Your task to perform on an android device: turn off improve location accuracy Image 0: 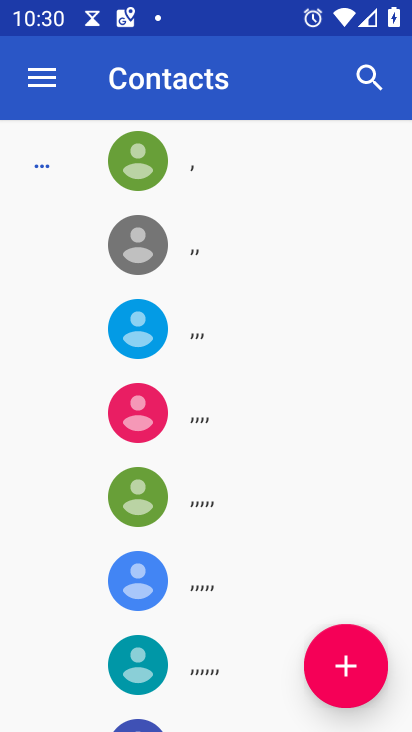
Step 0: press back button
Your task to perform on an android device: turn off improve location accuracy Image 1: 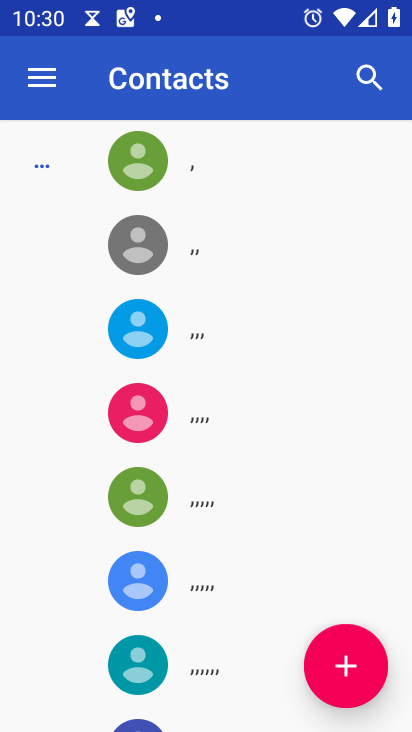
Step 1: press back button
Your task to perform on an android device: turn off improve location accuracy Image 2: 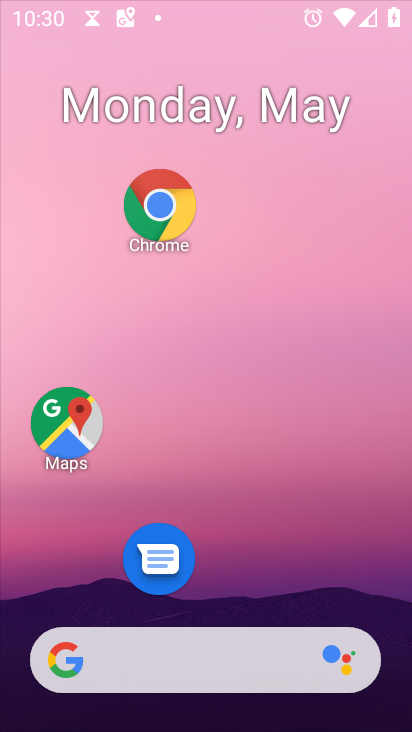
Step 2: press back button
Your task to perform on an android device: turn off improve location accuracy Image 3: 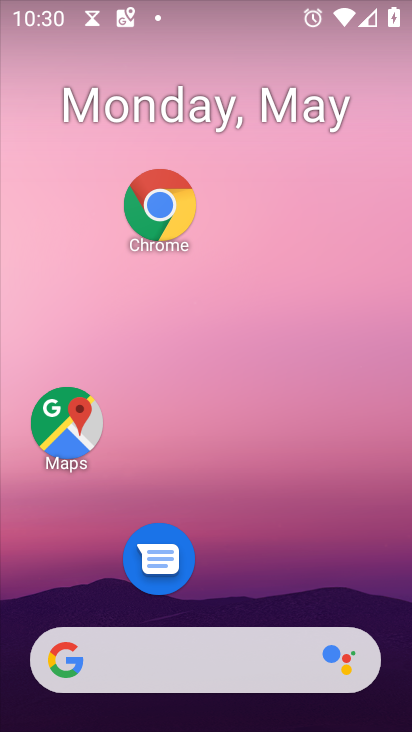
Step 3: drag from (258, 583) to (200, 63)
Your task to perform on an android device: turn off improve location accuracy Image 4: 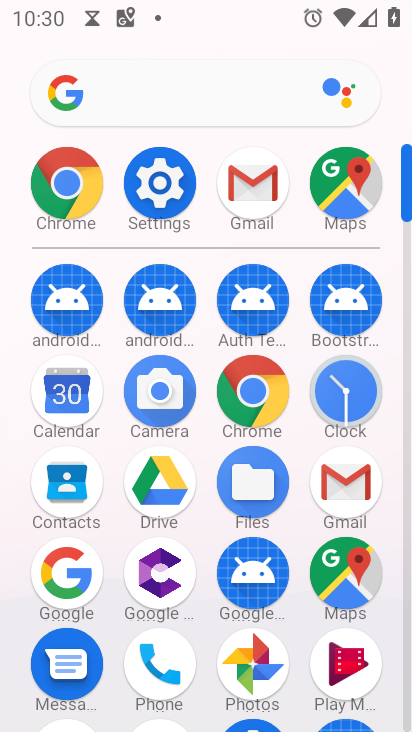
Step 4: click (147, 193)
Your task to perform on an android device: turn off improve location accuracy Image 5: 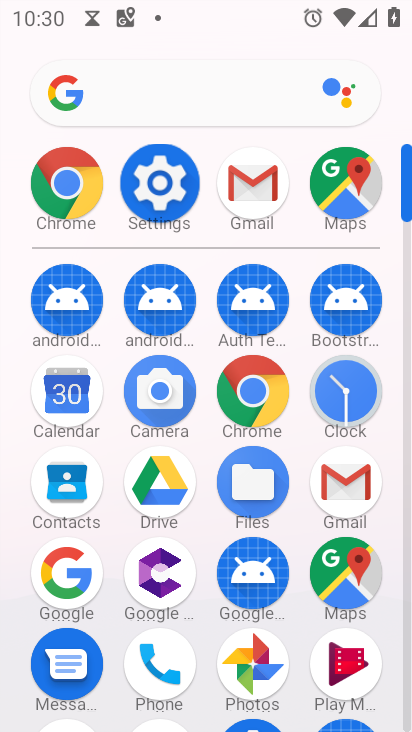
Step 5: click (153, 191)
Your task to perform on an android device: turn off improve location accuracy Image 6: 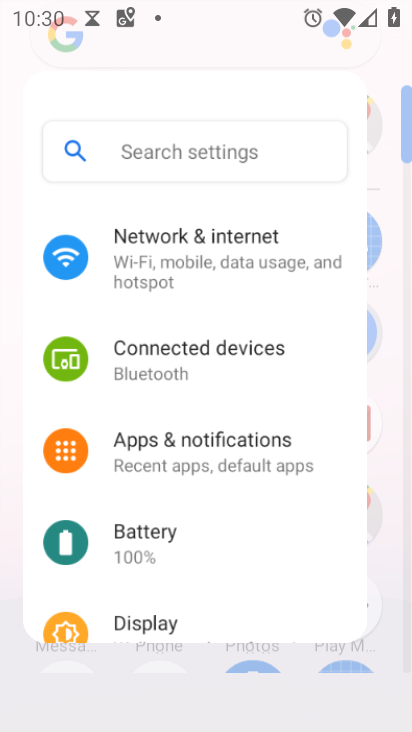
Step 6: click (153, 191)
Your task to perform on an android device: turn off improve location accuracy Image 7: 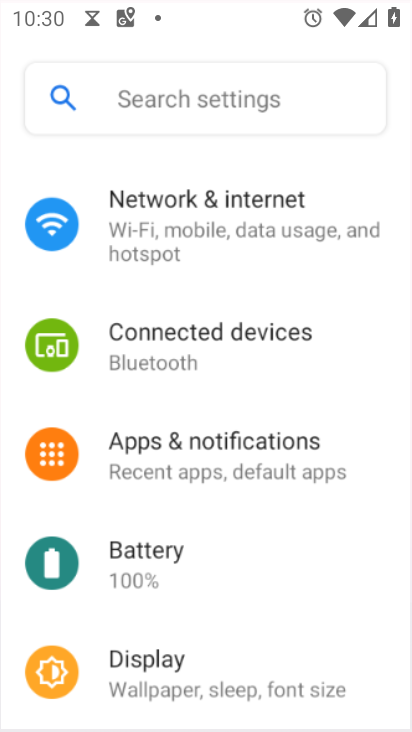
Step 7: click (151, 192)
Your task to perform on an android device: turn off improve location accuracy Image 8: 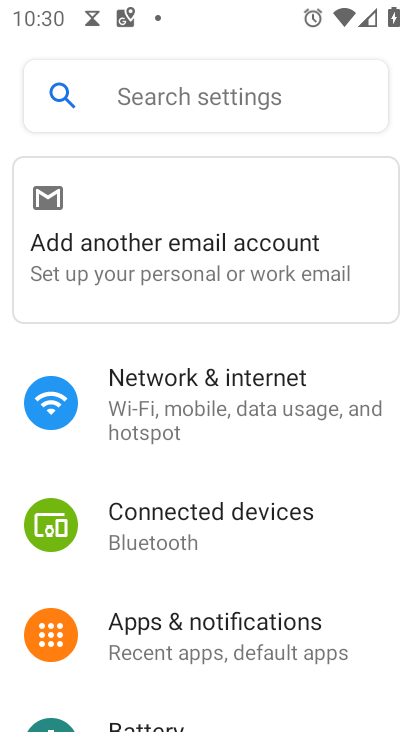
Step 8: press home button
Your task to perform on an android device: turn off improve location accuracy Image 9: 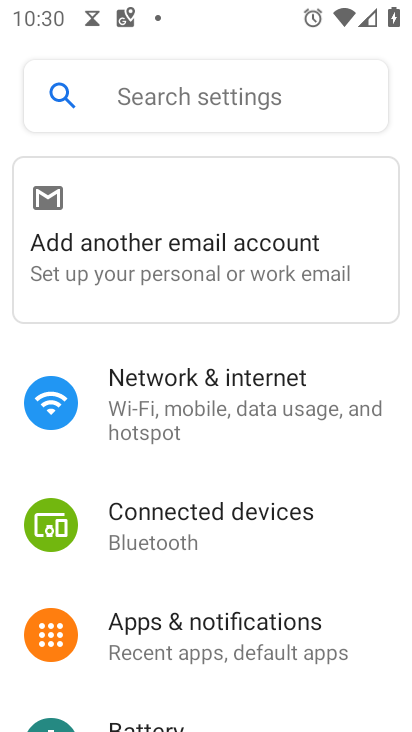
Step 9: press home button
Your task to perform on an android device: turn off improve location accuracy Image 10: 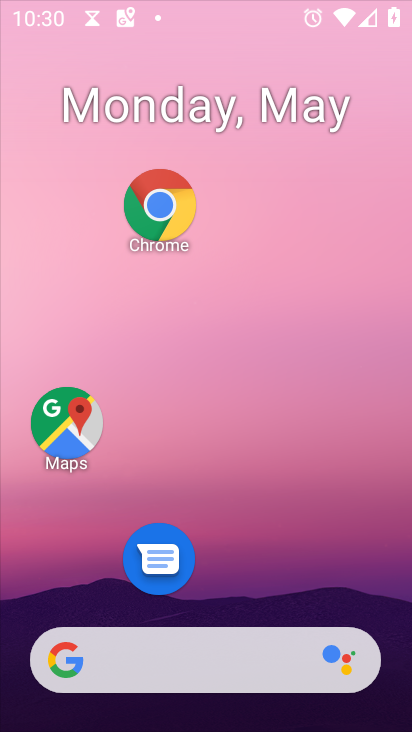
Step 10: press home button
Your task to perform on an android device: turn off improve location accuracy Image 11: 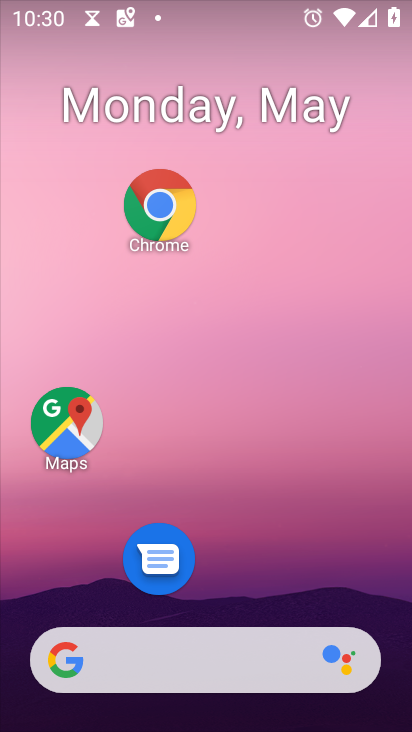
Step 11: drag from (220, 692) to (141, 63)
Your task to perform on an android device: turn off improve location accuracy Image 12: 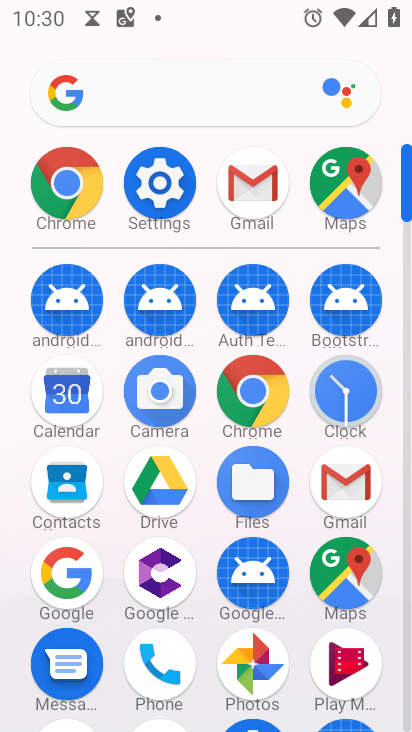
Step 12: click (155, 189)
Your task to perform on an android device: turn off improve location accuracy Image 13: 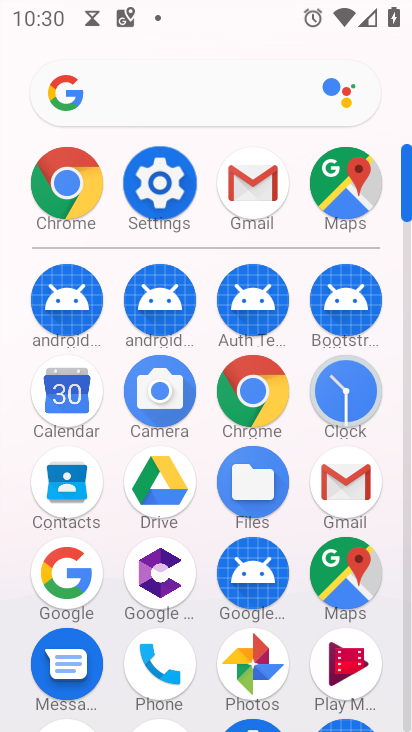
Step 13: click (155, 189)
Your task to perform on an android device: turn off improve location accuracy Image 14: 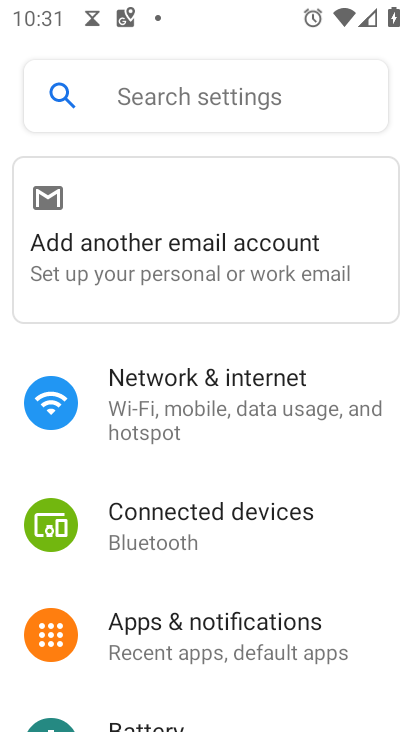
Step 14: drag from (252, 488) to (227, 81)
Your task to perform on an android device: turn off improve location accuracy Image 15: 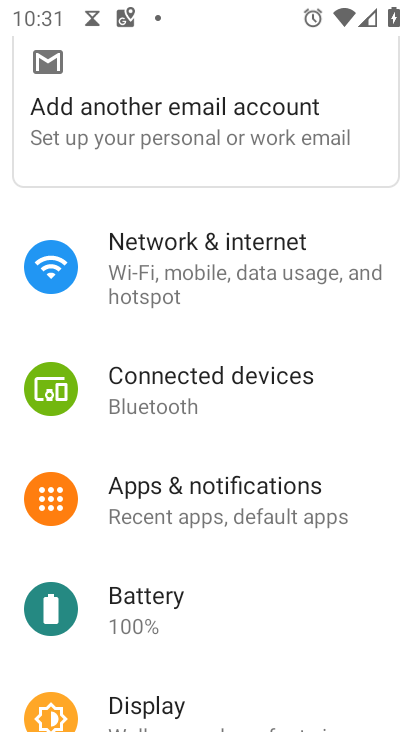
Step 15: click (228, 178)
Your task to perform on an android device: turn off improve location accuracy Image 16: 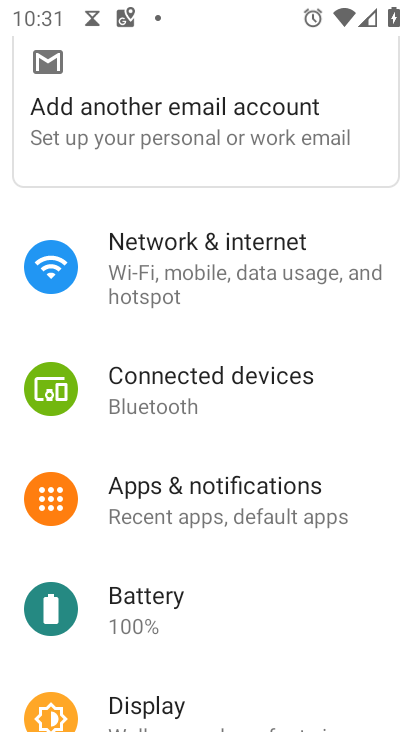
Step 16: drag from (258, 481) to (235, 73)
Your task to perform on an android device: turn off improve location accuracy Image 17: 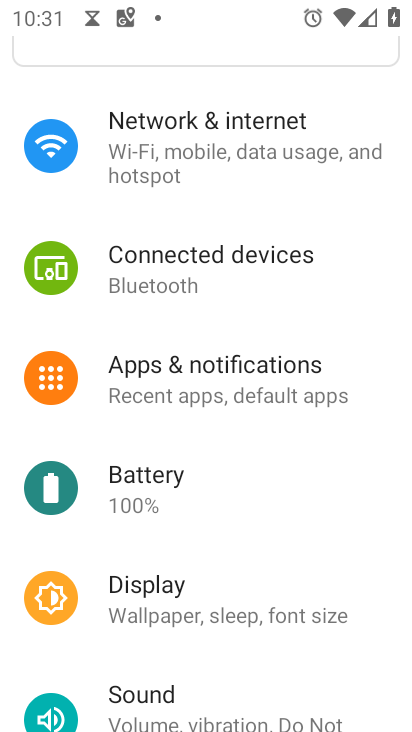
Step 17: drag from (225, 526) to (170, 247)
Your task to perform on an android device: turn off improve location accuracy Image 18: 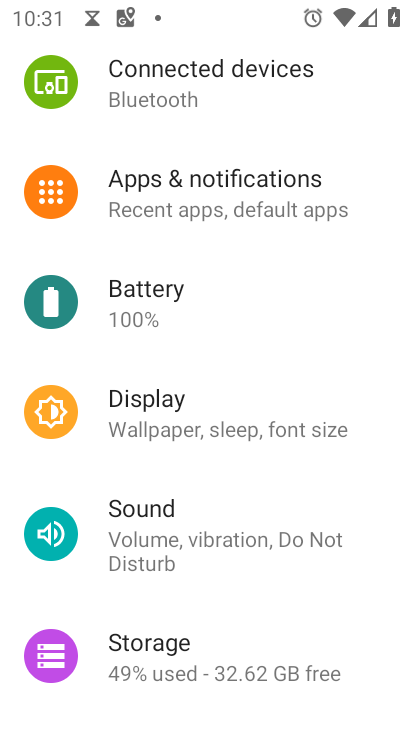
Step 18: drag from (185, 551) to (162, 189)
Your task to perform on an android device: turn off improve location accuracy Image 19: 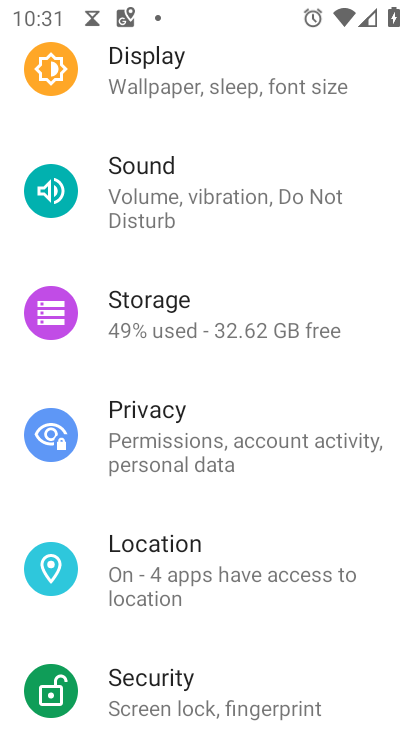
Step 19: drag from (265, 567) to (250, 177)
Your task to perform on an android device: turn off improve location accuracy Image 20: 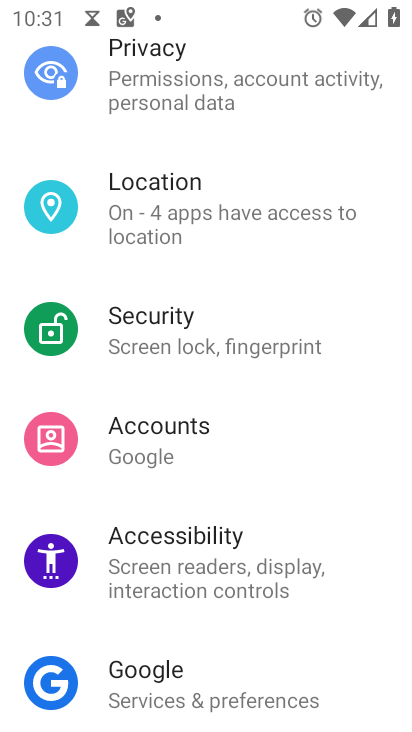
Step 20: drag from (190, 550) to (208, 50)
Your task to perform on an android device: turn off improve location accuracy Image 21: 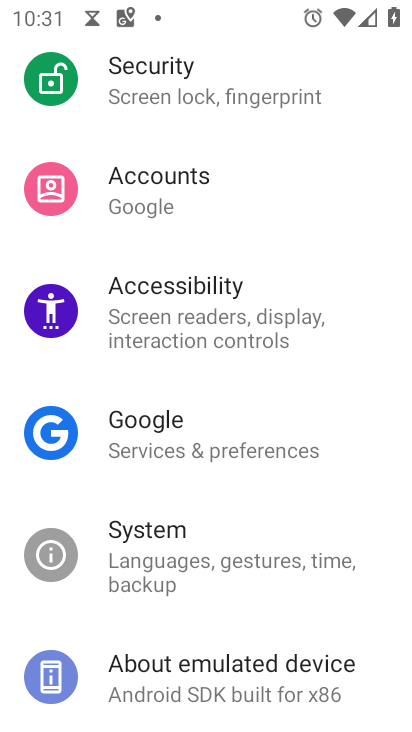
Step 21: click (250, 92)
Your task to perform on an android device: turn off improve location accuracy Image 22: 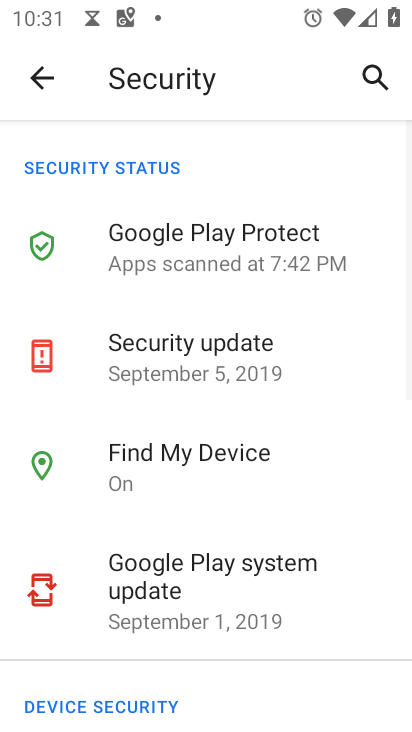
Step 22: click (38, 74)
Your task to perform on an android device: turn off improve location accuracy Image 23: 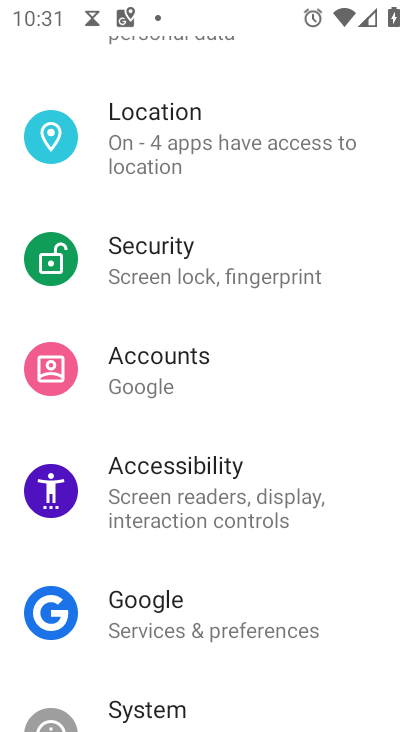
Step 23: click (168, 134)
Your task to perform on an android device: turn off improve location accuracy Image 24: 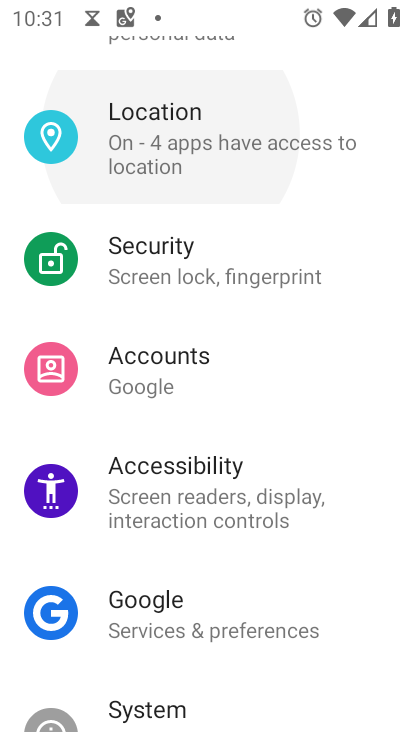
Step 24: click (168, 134)
Your task to perform on an android device: turn off improve location accuracy Image 25: 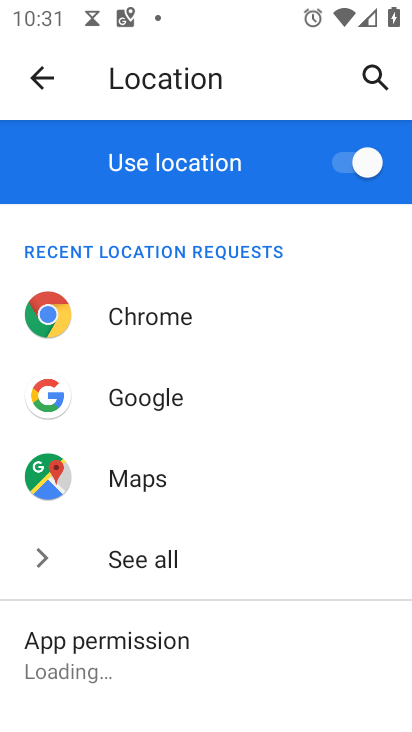
Step 25: drag from (202, 567) to (257, 164)
Your task to perform on an android device: turn off improve location accuracy Image 26: 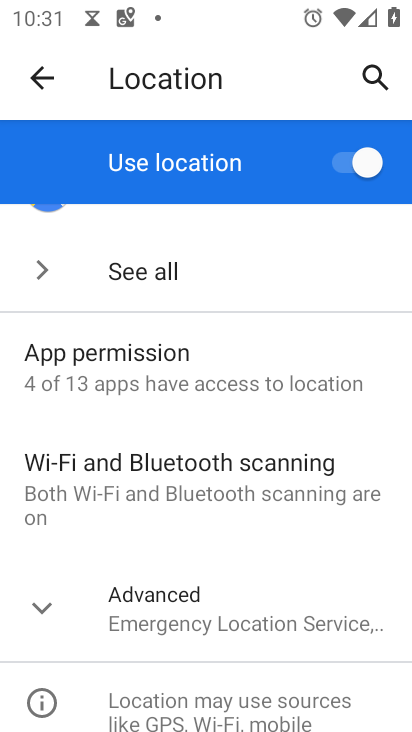
Step 26: click (96, 374)
Your task to perform on an android device: turn off improve location accuracy Image 27: 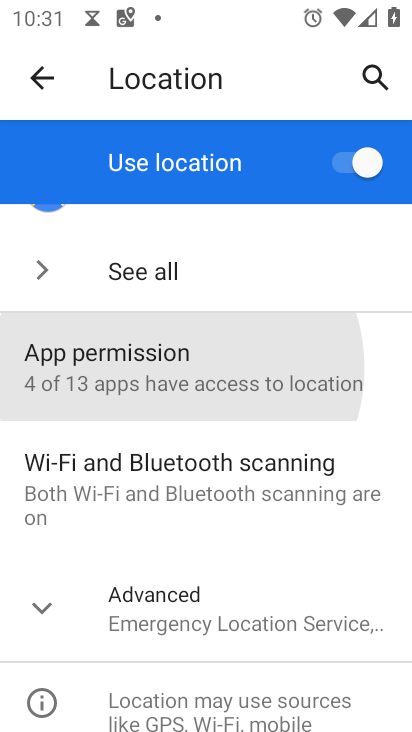
Step 27: click (97, 375)
Your task to perform on an android device: turn off improve location accuracy Image 28: 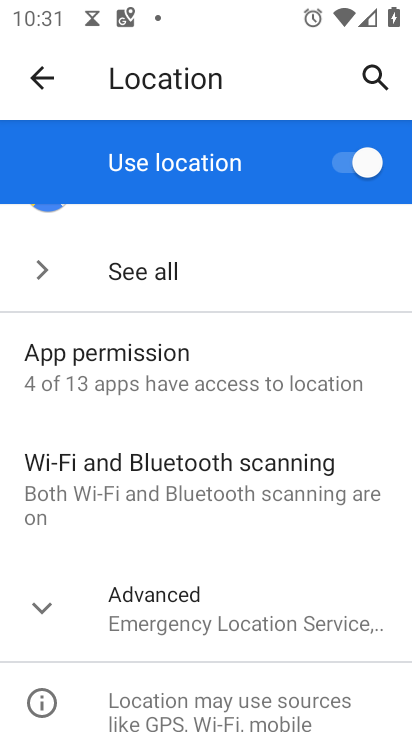
Step 28: click (99, 375)
Your task to perform on an android device: turn off improve location accuracy Image 29: 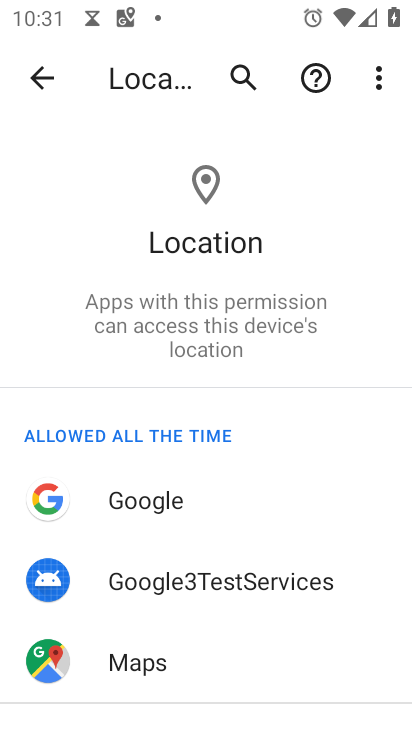
Step 29: drag from (256, 558) to (187, 64)
Your task to perform on an android device: turn off improve location accuracy Image 30: 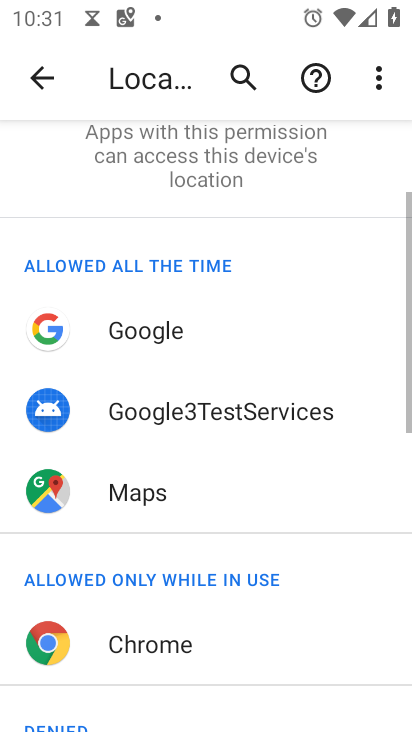
Step 30: drag from (273, 476) to (233, 123)
Your task to perform on an android device: turn off improve location accuracy Image 31: 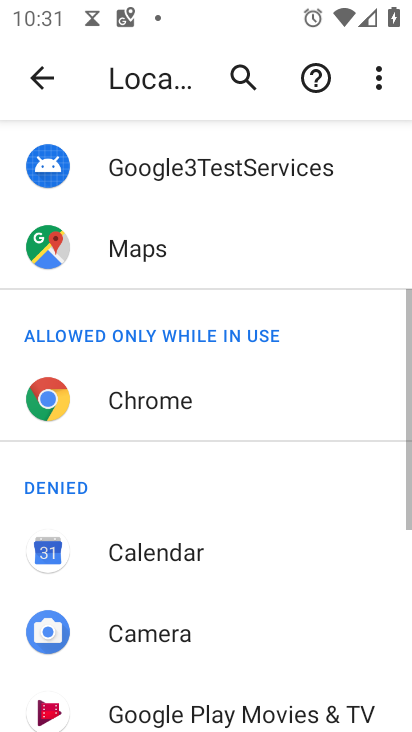
Step 31: drag from (258, 470) to (286, 113)
Your task to perform on an android device: turn off improve location accuracy Image 32: 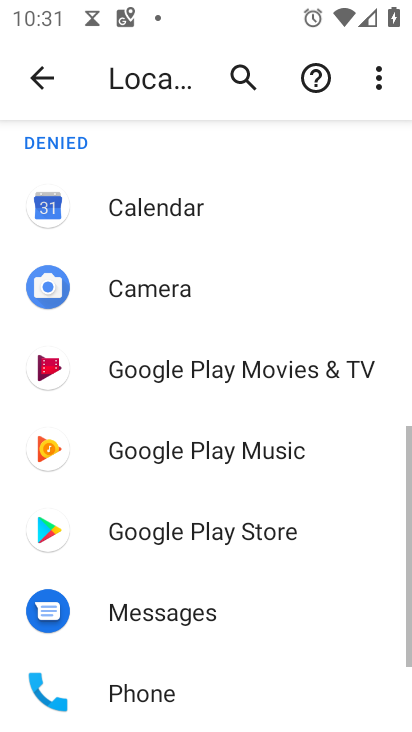
Step 32: drag from (274, 515) to (248, 155)
Your task to perform on an android device: turn off improve location accuracy Image 33: 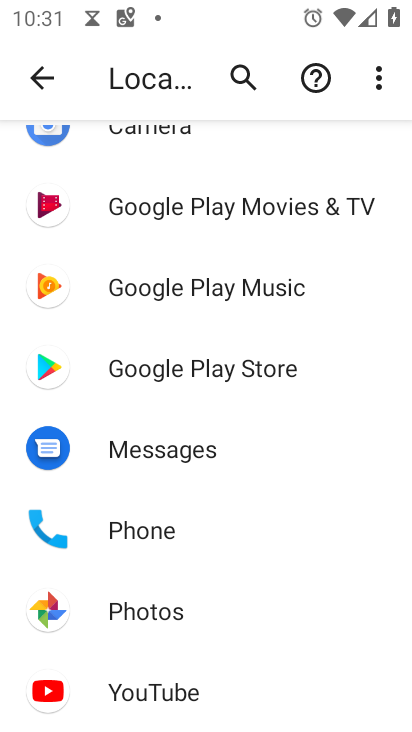
Step 33: click (40, 72)
Your task to perform on an android device: turn off improve location accuracy Image 34: 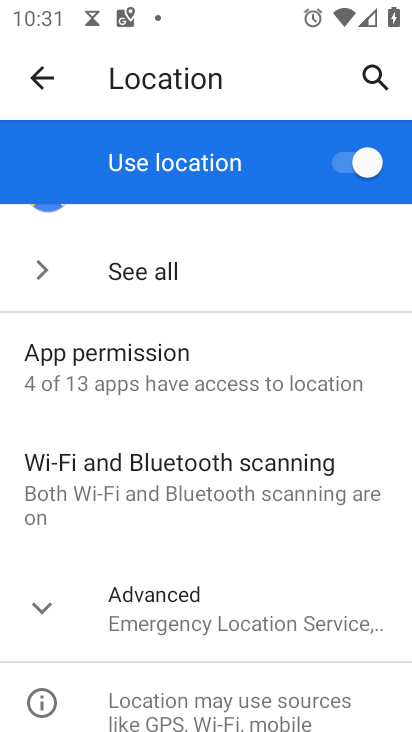
Step 34: click (137, 366)
Your task to perform on an android device: turn off improve location accuracy Image 35: 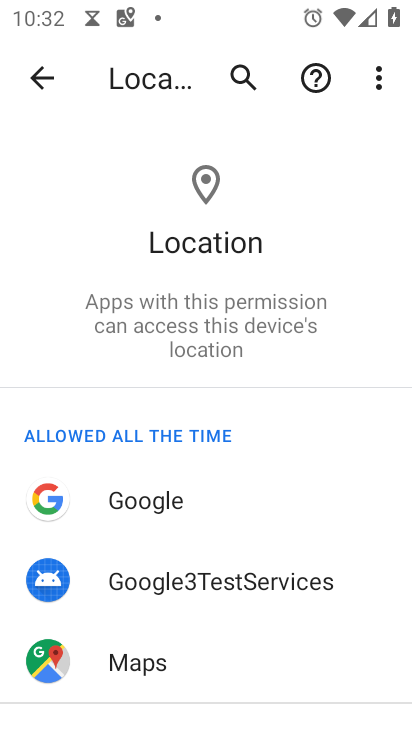
Step 35: click (28, 63)
Your task to perform on an android device: turn off improve location accuracy Image 36: 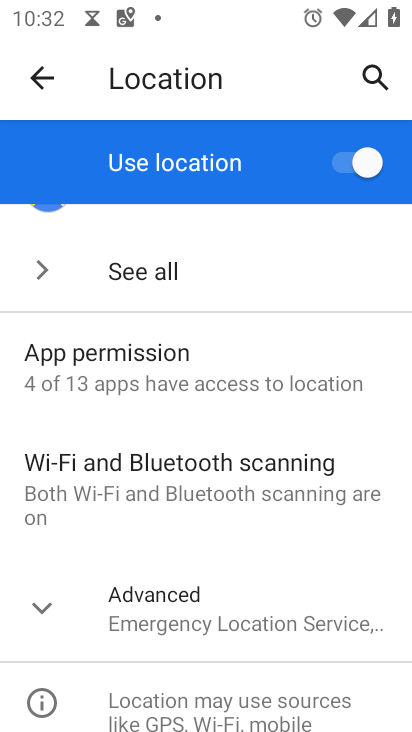
Step 36: click (173, 609)
Your task to perform on an android device: turn off improve location accuracy Image 37: 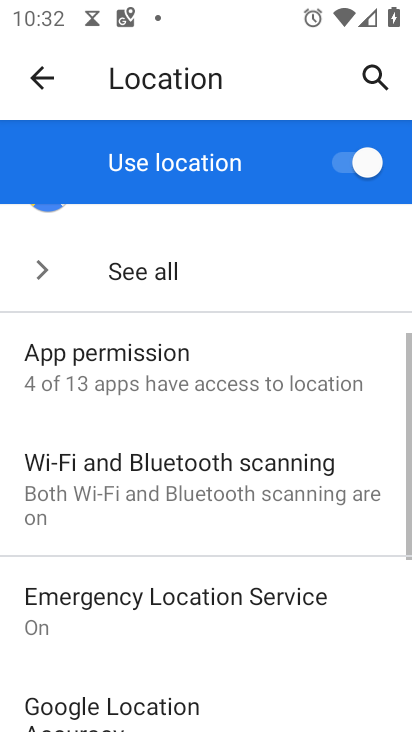
Step 37: drag from (248, 643) to (237, 245)
Your task to perform on an android device: turn off improve location accuracy Image 38: 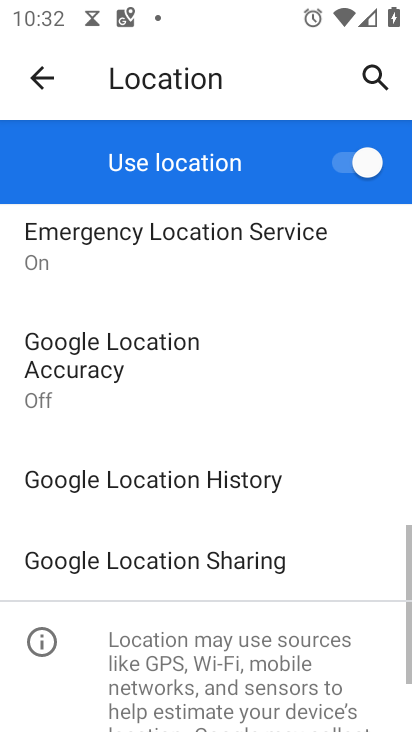
Step 38: drag from (263, 418) to (263, 326)
Your task to perform on an android device: turn off improve location accuracy Image 39: 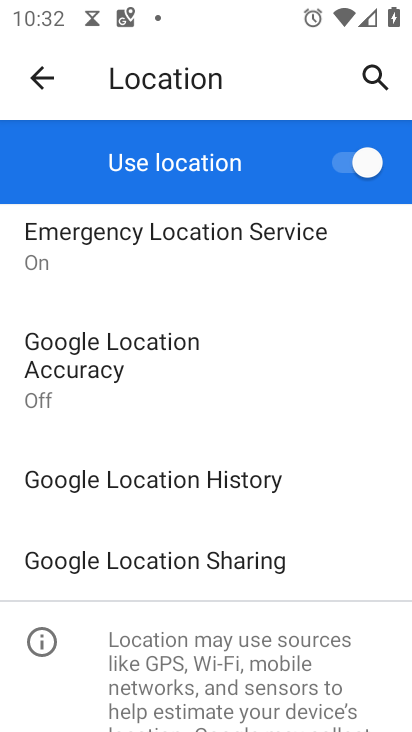
Step 39: click (74, 357)
Your task to perform on an android device: turn off improve location accuracy Image 40: 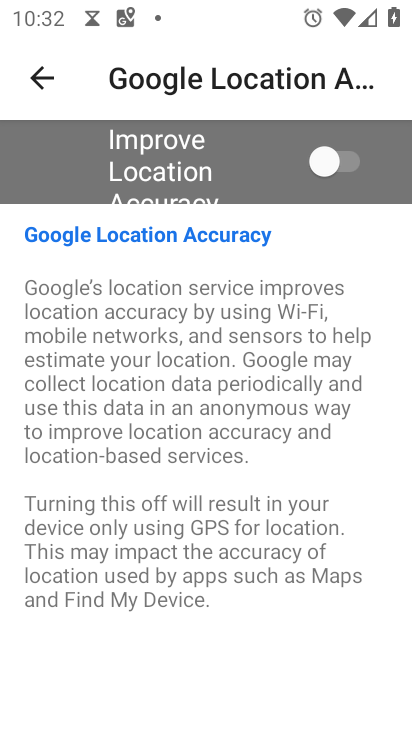
Step 40: task complete